Your task to perform on an android device: Open the calendar app, open the side menu, and click the "Day" option Image 0: 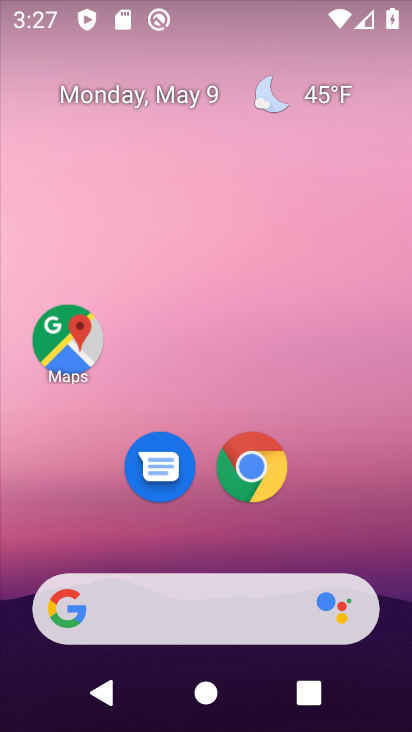
Step 0: drag from (326, 517) to (350, 104)
Your task to perform on an android device: Open the calendar app, open the side menu, and click the "Day" option Image 1: 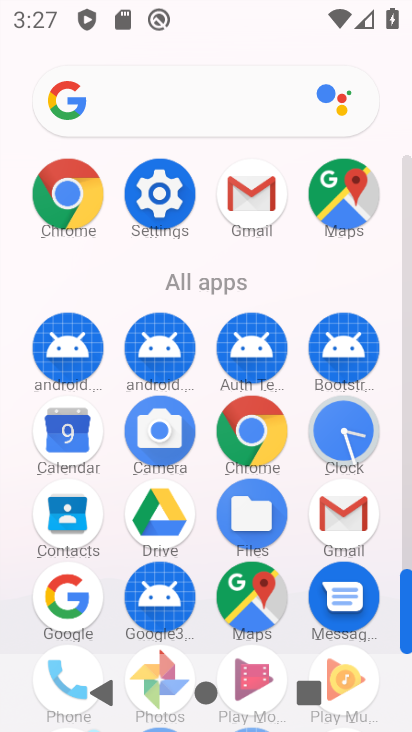
Step 1: click (72, 439)
Your task to perform on an android device: Open the calendar app, open the side menu, and click the "Day" option Image 2: 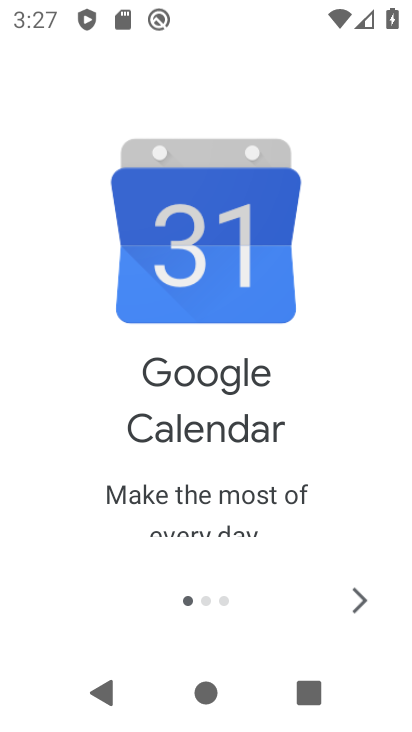
Step 2: click (355, 607)
Your task to perform on an android device: Open the calendar app, open the side menu, and click the "Day" option Image 3: 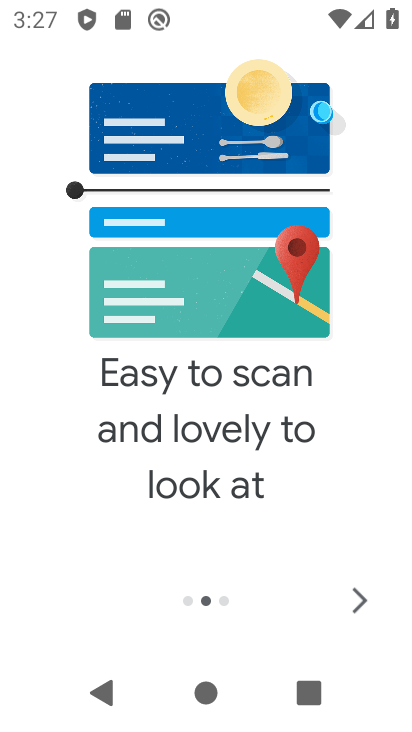
Step 3: click (355, 607)
Your task to perform on an android device: Open the calendar app, open the side menu, and click the "Day" option Image 4: 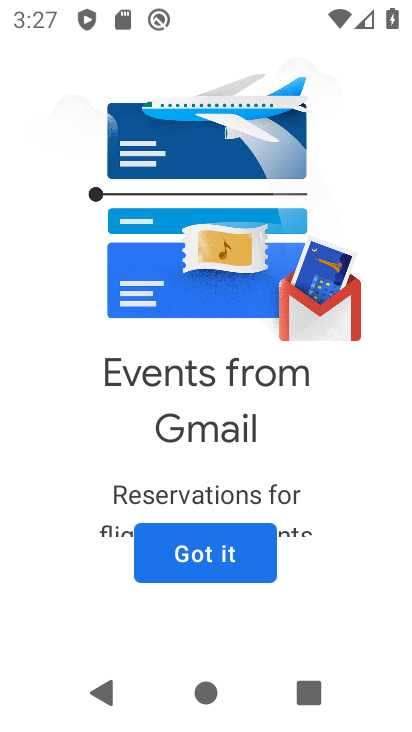
Step 4: click (224, 578)
Your task to perform on an android device: Open the calendar app, open the side menu, and click the "Day" option Image 5: 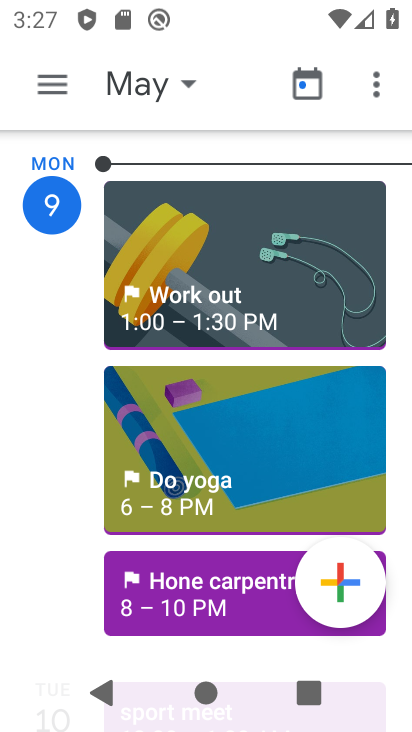
Step 5: click (33, 87)
Your task to perform on an android device: Open the calendar app, open the side menu, and click the "Day" option Image 6: 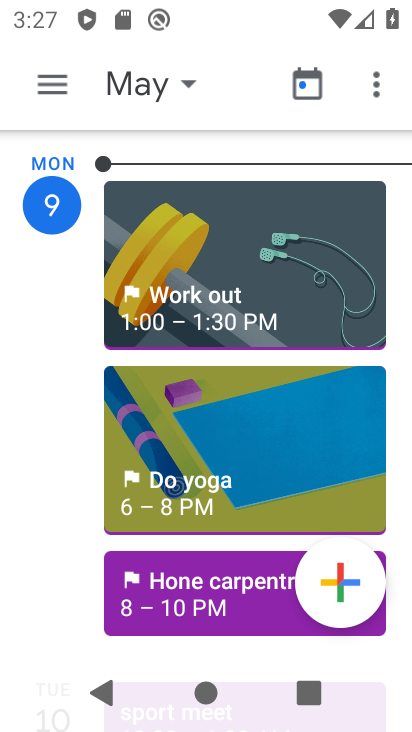
Step 6: click (62, 82)
Your task to perform on an android device: Open the calendar app, open the side menu, and click the "Day" option Image 7: 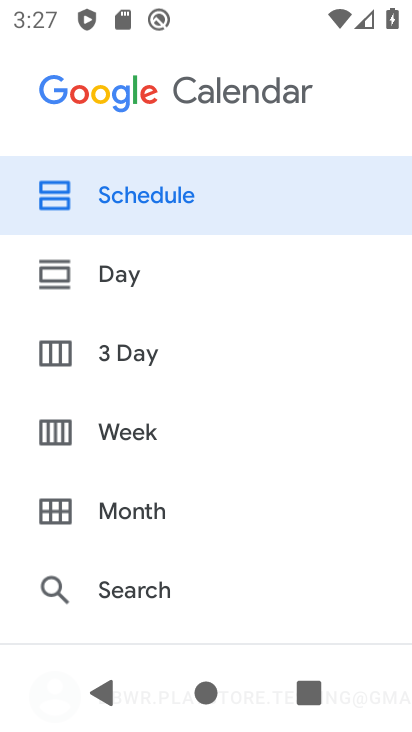
Step 7: click (181, 274)
Your task to perform on an android device: Open the calendar app, open the side menu, and click the "Day" option Image 8: 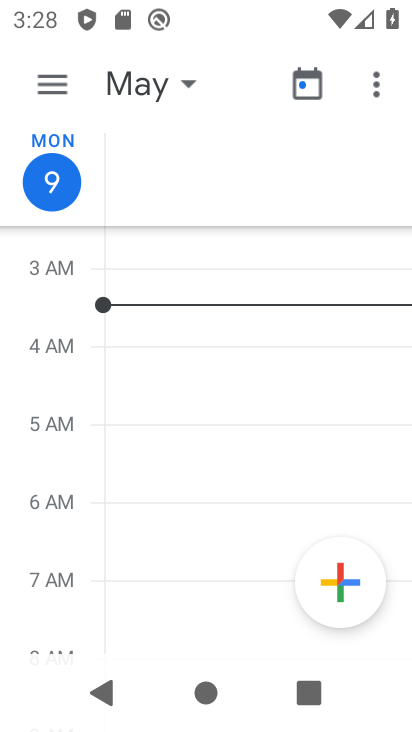
Step 8: task complete